Your task to perform on an android device: What's on my calendar tomorrow? Image 0: 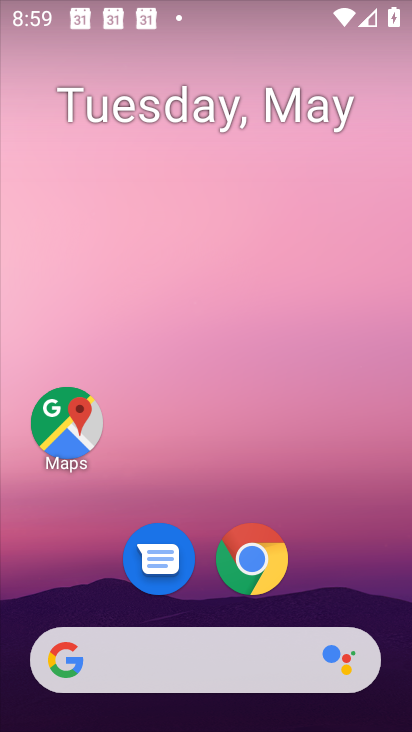
Step 0: drag from (342, 580) to (255, 40)
Your task to perform on an android device: What's on my calendar tomorrow? Image 1: 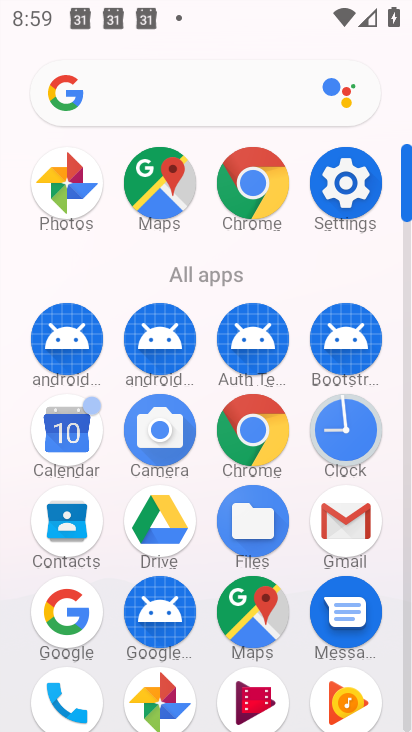
Step 1: click (68, 434)
Your task to perform on an android device: What's on my calendar tomorrow? Image 2: 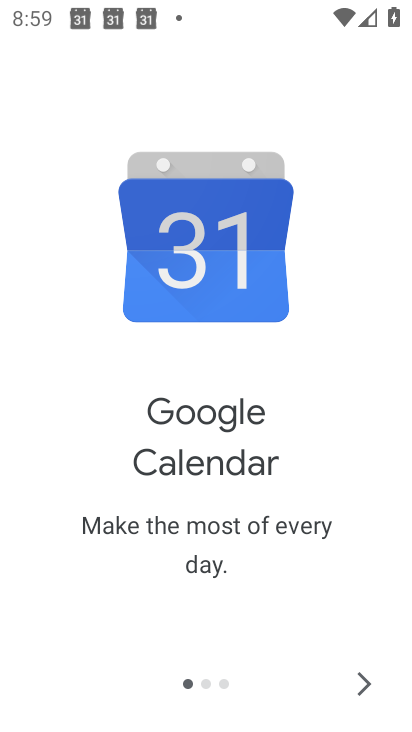
Step 2: click (362, 683)
Your task to perform on an android device: What's on my calendar tomorrow? Image 3: 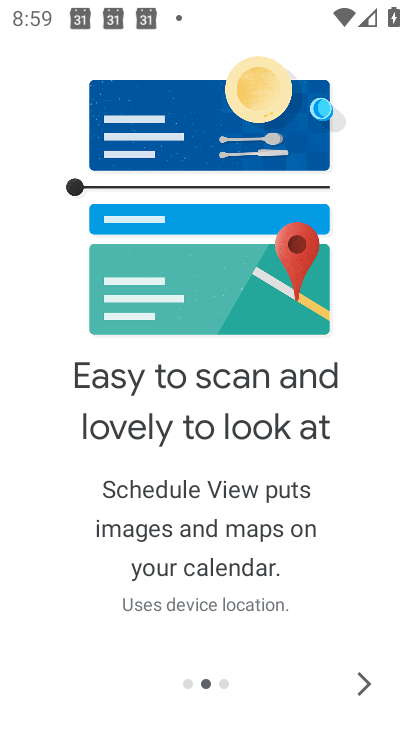
Step 3: click (362, 683)
Your task to perform on an android device: What's on my calendar tomorrow? Image 4: 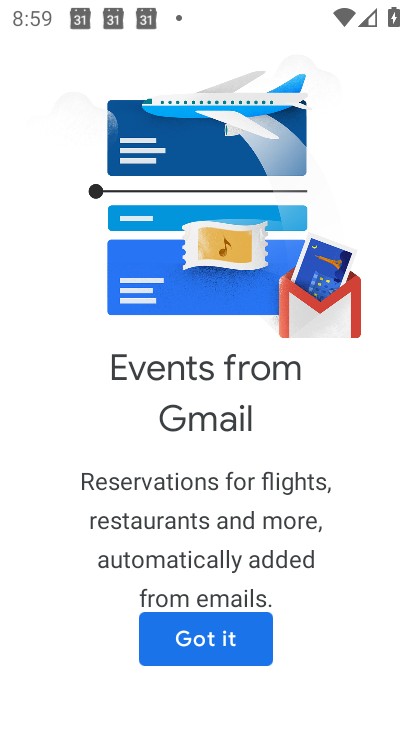
Step 4: click (210, 643)
Your task to perform on an android device: What's on my calendar tomorrow? Image 5: 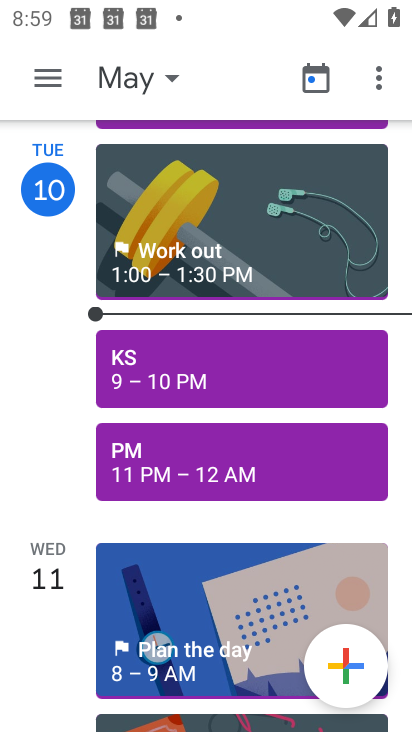
Step 5: click (170, 78)
Your task to perform on an android device: What's on my calendar tomorrow? Image 6: 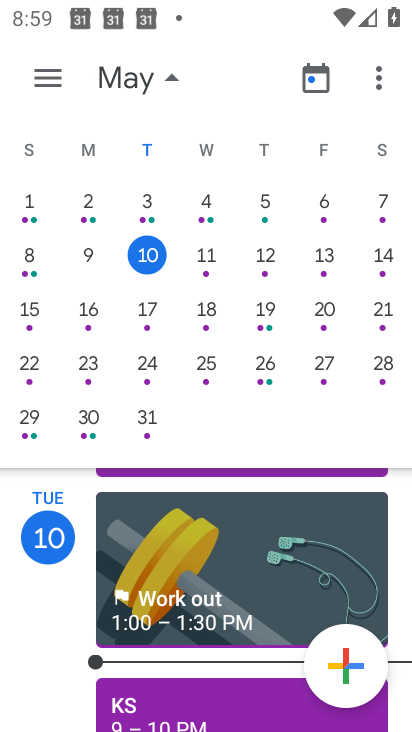
Step 6: click (204, 249)
Your task to perform on an android device: What's on my calendar tomorrow? Image 7: 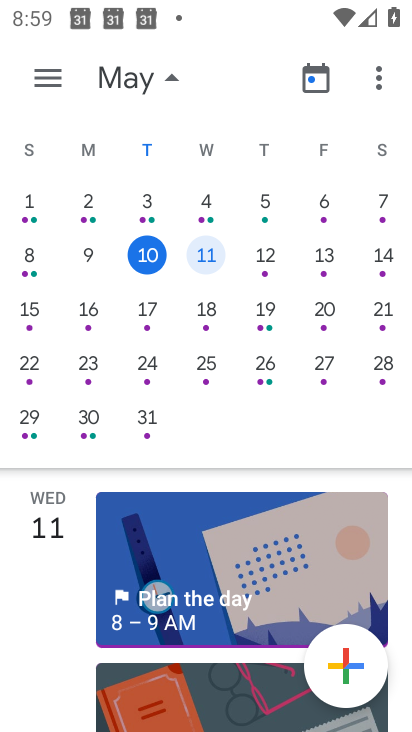
Step 7: task complete